Your task to perform on an android device: delete the emails in spam in the gmail app Image 0: 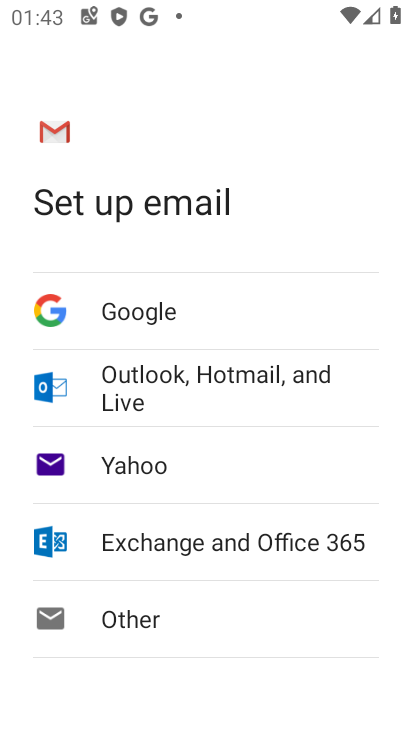
Step 0: click (269, 303)
Your task to perform on an android device: delete the emails in spam in the gmail app Image 1: 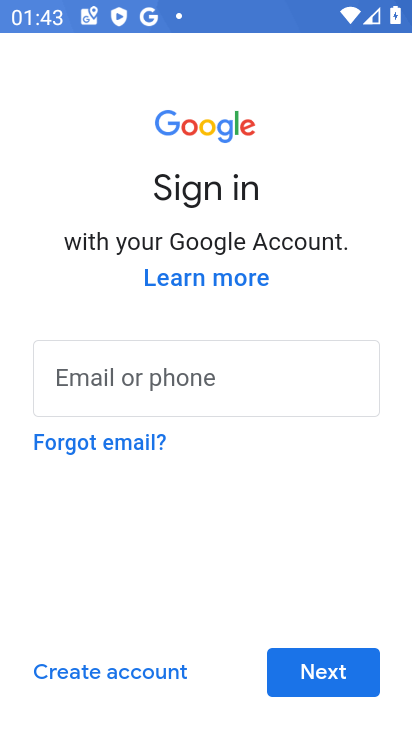
Step 1: press home button
Your task to perform on an android device: delete the emails in spam in the gmail app Image 2: 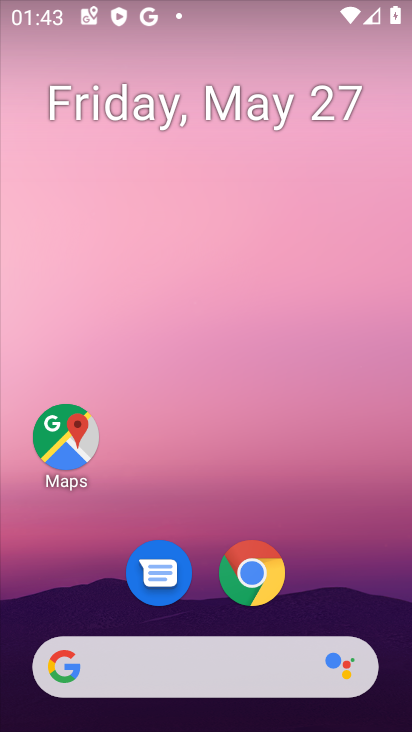
Step 2: drag from (164, 618) to (91, 7)
Your task to perform on an android device: delete the emails in spam in the gmail app Image 3: 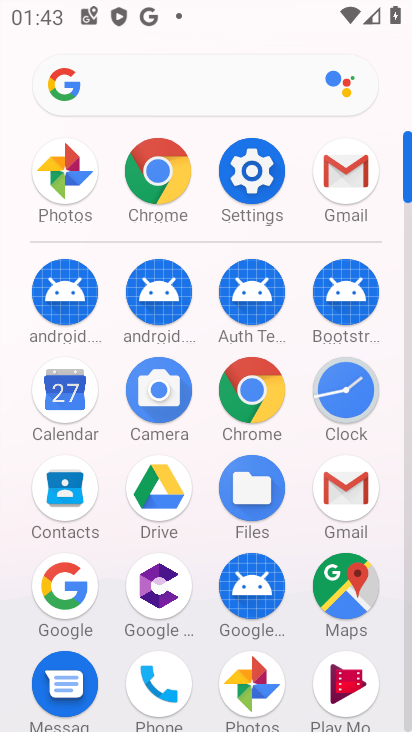
Step 3: click (338, 491)
Your task to perform on an android device: delete the emails in spam in the gmail app Image 4: 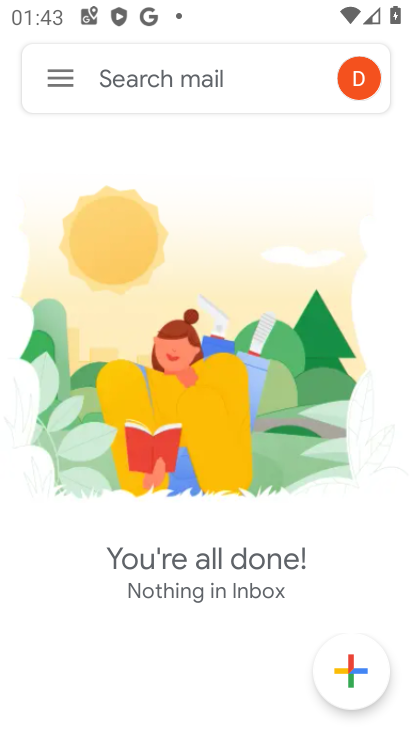
Step 4: click (53, 71)
Your task to perform on an android device: delete the emails in spam in the gmail app Image 5: 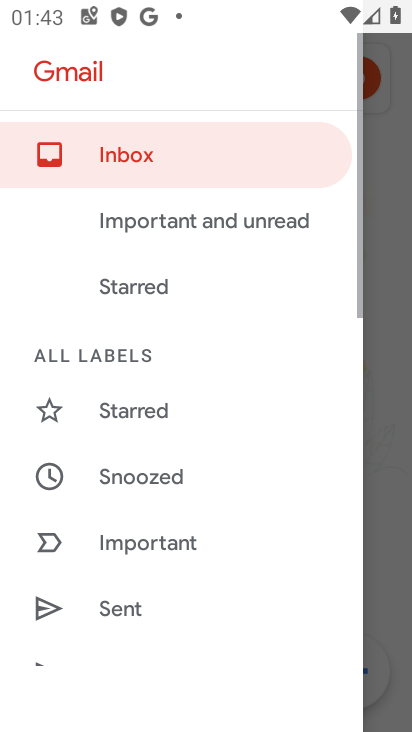
Step 5: drag from (167, 634) to (117, 220)
Your task to perform on an android device: delete the emails in spam in the gmail app Image 6: 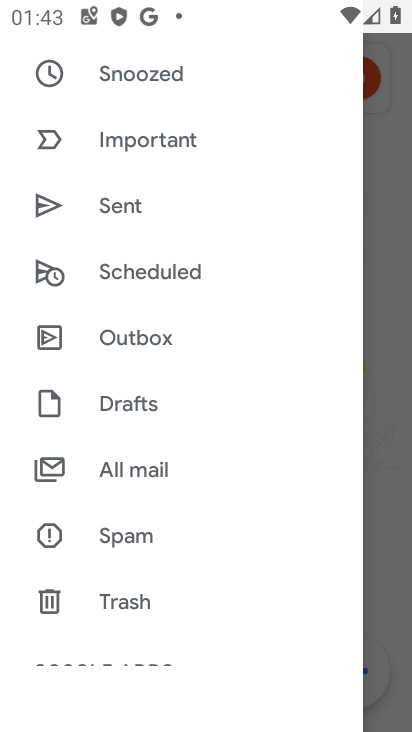
Step 6: click (140, 474)
Your task to perform on an android device: delete the emails in spam in the gmail app Image 7: 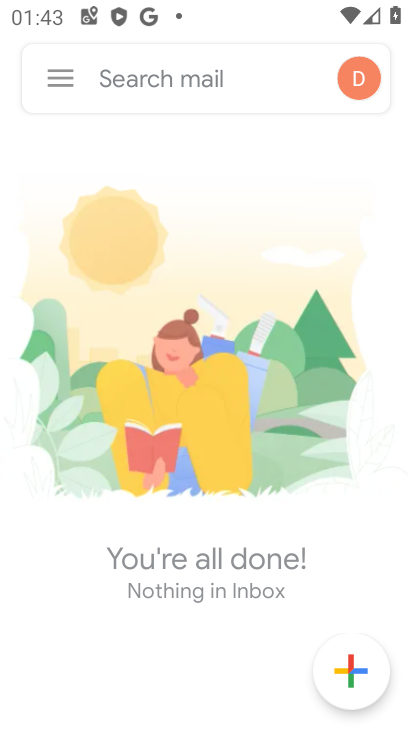
Step 7: task complete